Your task to perform on an android device: Show me recent news Image 0: 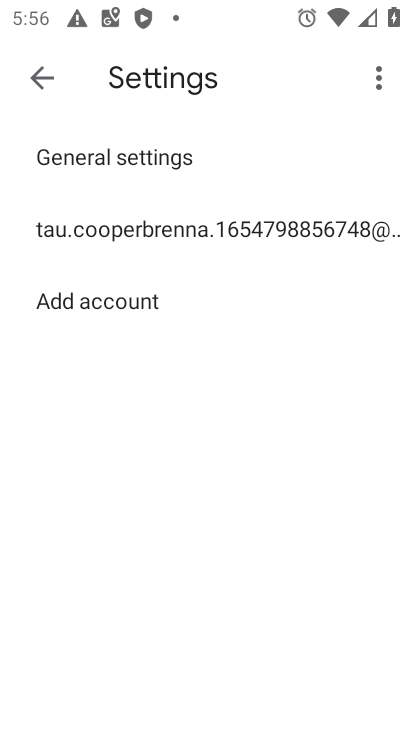
Step 0: press home button
Your task to perform on an android device: Show me recent news Image 1: 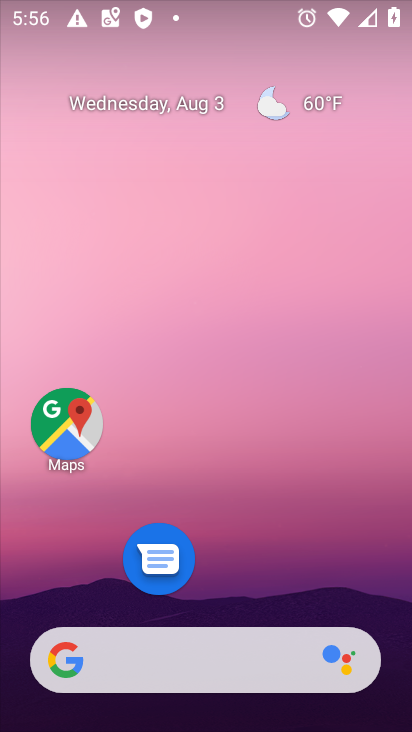
Step 1: drag from (194, 617) to (247, 164)
Your task to perform on an android device: Show me recent news Image 2: 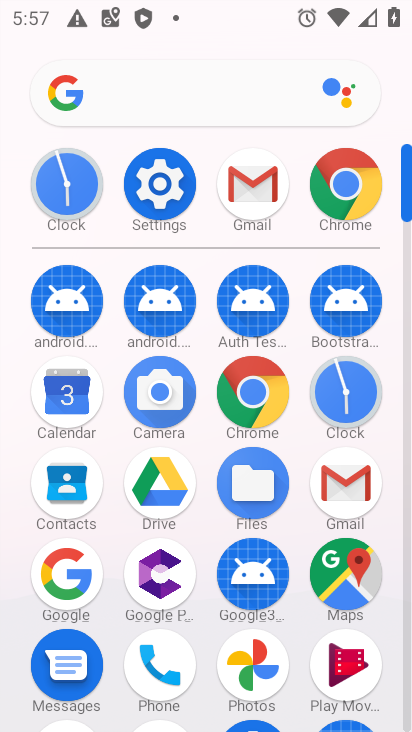
Step 2: click (68, 572)
Your task to perform on an android device: Show me recent news Image 3: 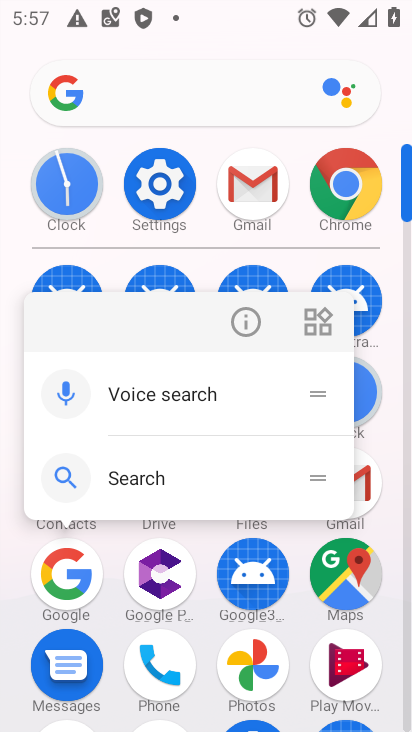
Step 3: click (68, 570)
Your task to perform on an android device: Show me recent news Image 4: 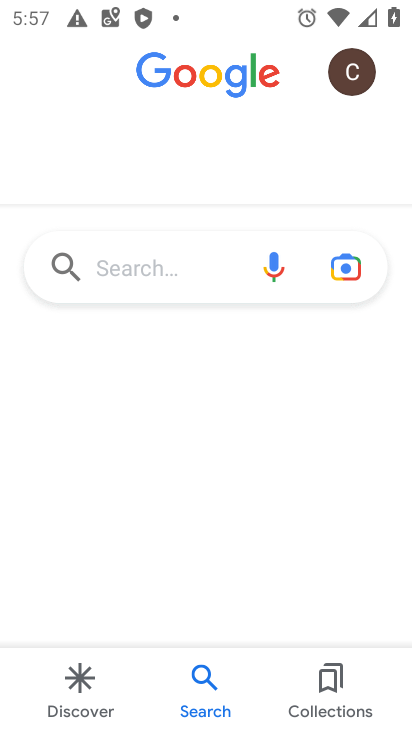
Step 4: click (167, 271)
Your task to perform on an android device: Show me recent news Image 5: 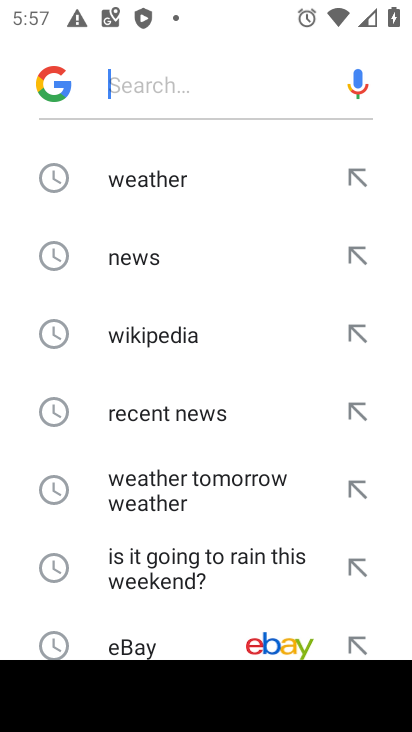
Step 5: click (151, 410)
Your task to perform on an android device: Show me recent news Image 6: 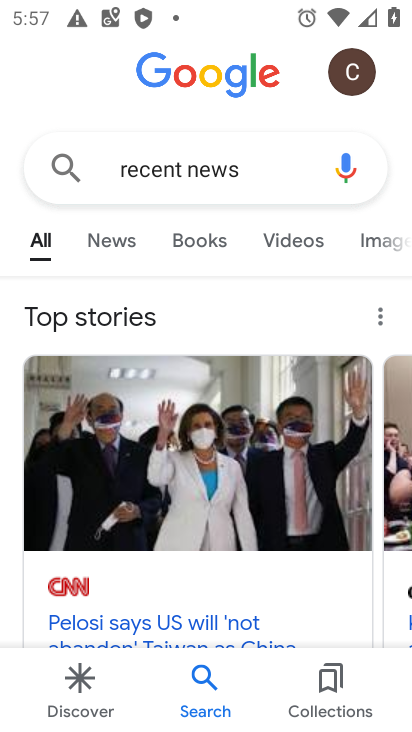
Step 6: task complete